Your task to perform on an android device: What's the latest video from GameSpot? Image 0: 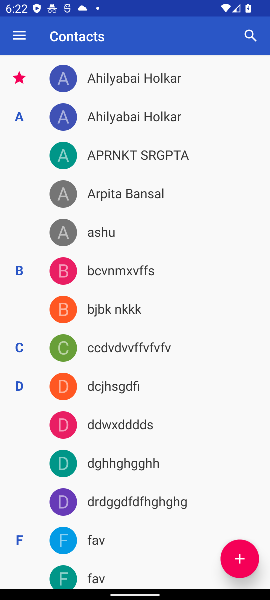
Step 0: press home button
Your task to perform on an android device: What's the latest video from GameSpot? Image 1: 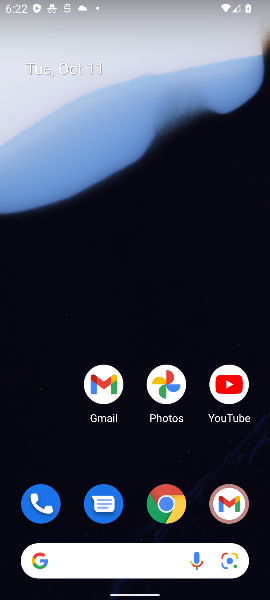
Step 1: click (233, 390)
Your task to perform on an android device: What's the latest video from GameSpot? Image 2: 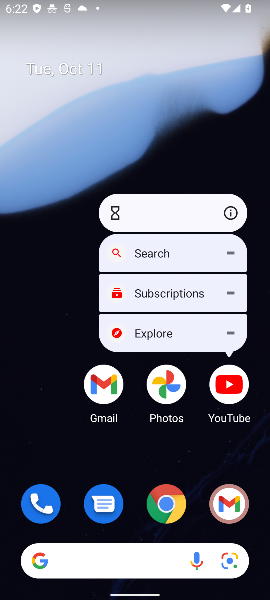
Step 2: click (228, 392)
Your task to perform on an android device: What's the latest video from GameSpot? Image 3: 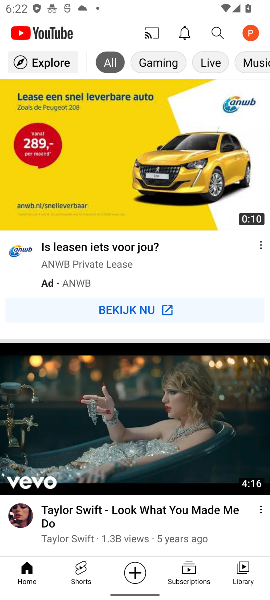
Step 3: click (213, 42)
Your task to perform on an android device: What's the latest video from GameSpot? Image 4: 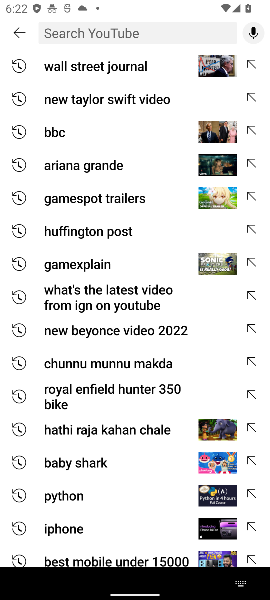
Step 4: click (109, 43)
Your task to perform on an android device: What's the latest video from GameSpot? Image 5: 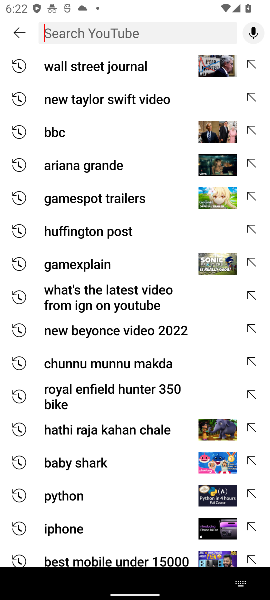
Step 5: type "game spot"
Your task to perform on an android device: What's the latest video from GameSpot? Image 6: 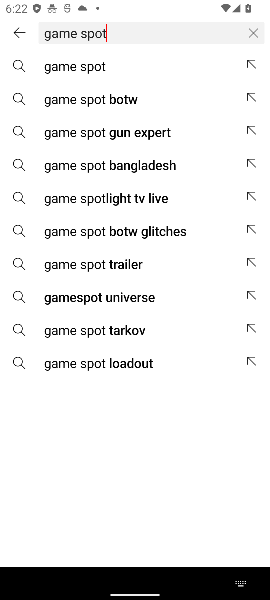
Step 6: click (81, 74)
Your task to perform on an android device: What's the latest video from GameSpot? Image 7: 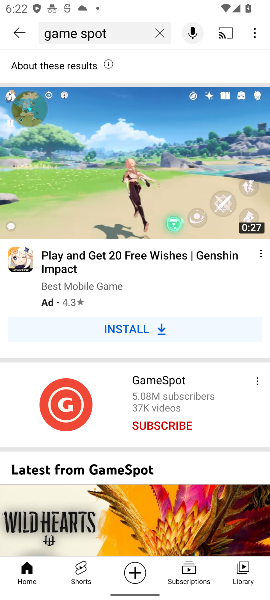
Step 7: click (158, 399)
Your task to perform on an android device: What's the latest video from GameSpot? Image 8: 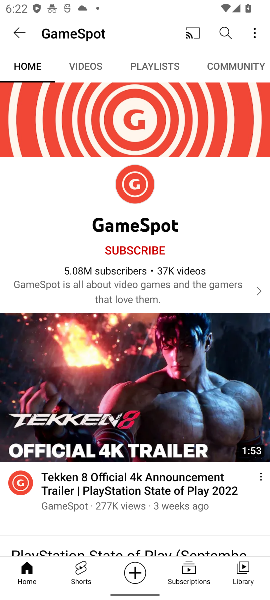
Step 8: task complete